Your task to perform on an android device: Open battery settings Image 0: 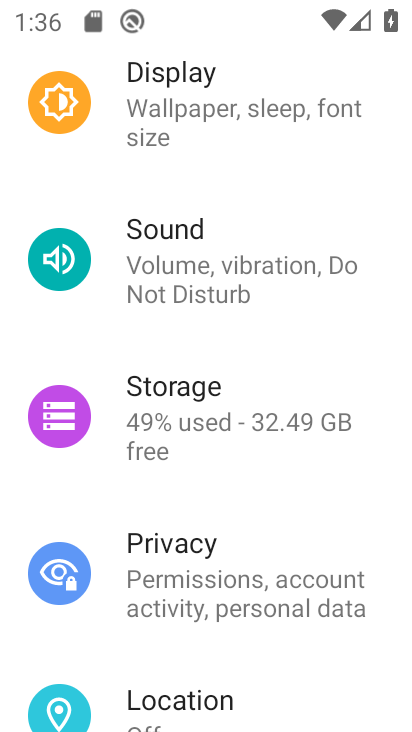
Step 0: press home button
Your task to perform on an android device: Open battery settings Image 1: 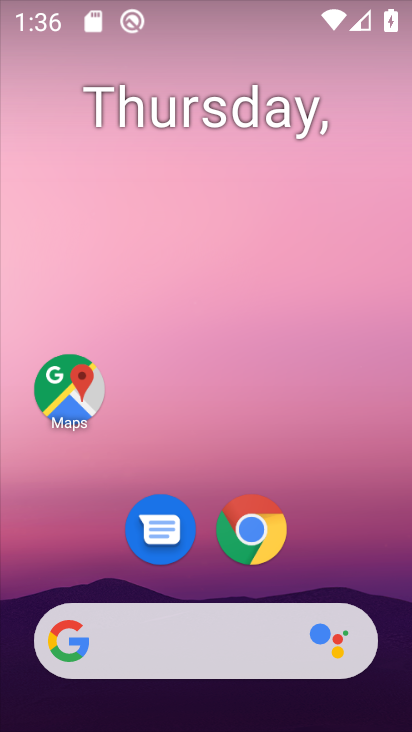
Step 1: drag from (293, 571) to (301, 13)
Your task to perform on an android device: Open battery settings Image 2: 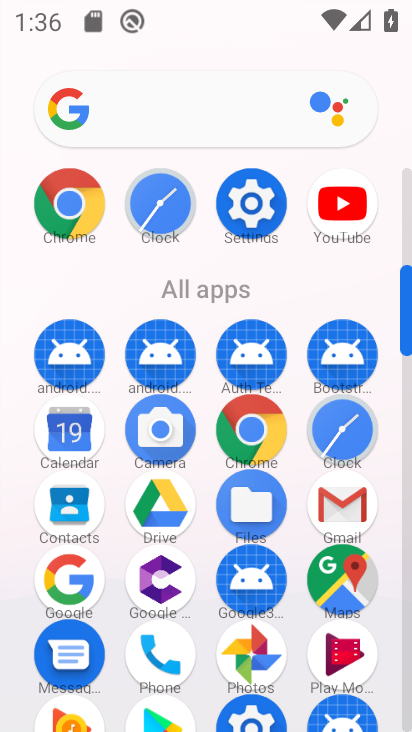
Step 2: click (250, 203)
Your task to perform on an android device: Open battery settings Image 3: 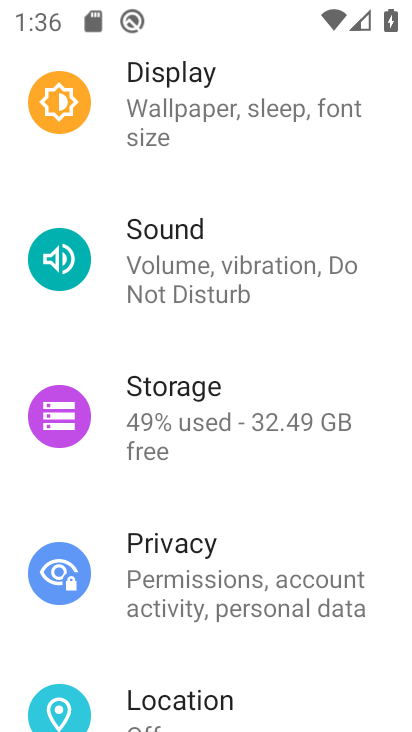
Step 3: click (237, 254)
Your task to perform on an android device: Open battery settings Image 4: 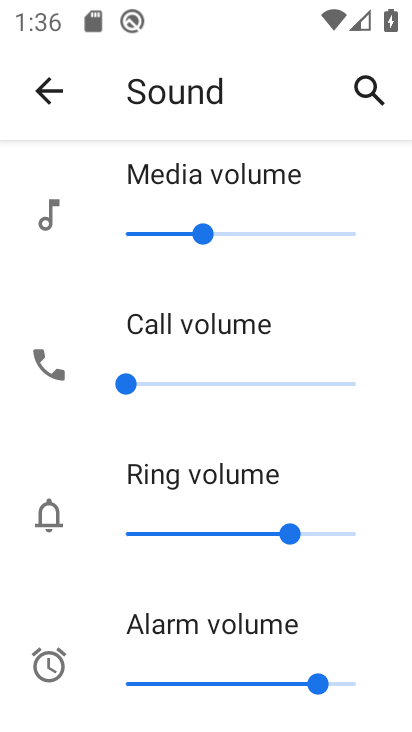
Step 4: click (50, 97)
Your task to perform on an android device: Open battery settings Image 5: 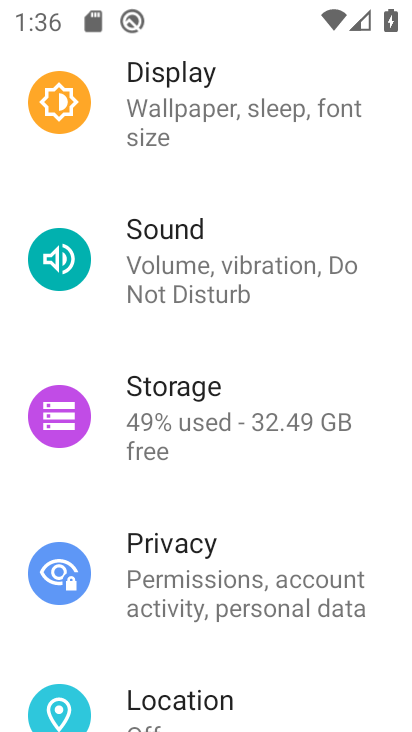
Step 5: drag from (263, 215) to (253, 593)
Your task to perform on an android device: Open battery settings Image 6: 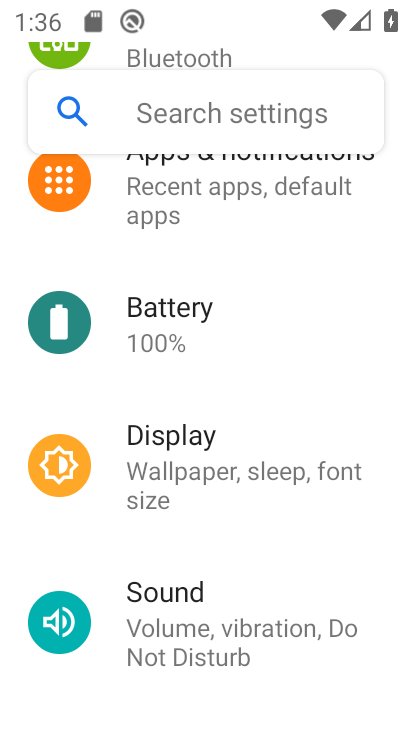
Step 6: drag from (252, 309) to (241, 674)
Your task to perform on an android device: Open battery settings Image 7: 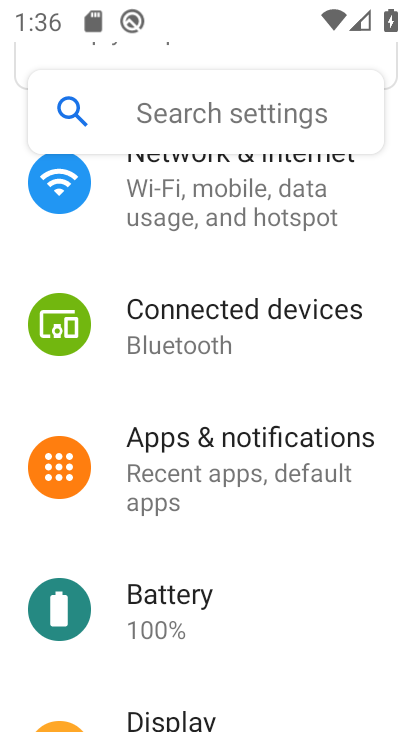
Step 7: click (160, 624)
Your task to perform on an android device: Open battery settings Image 8: 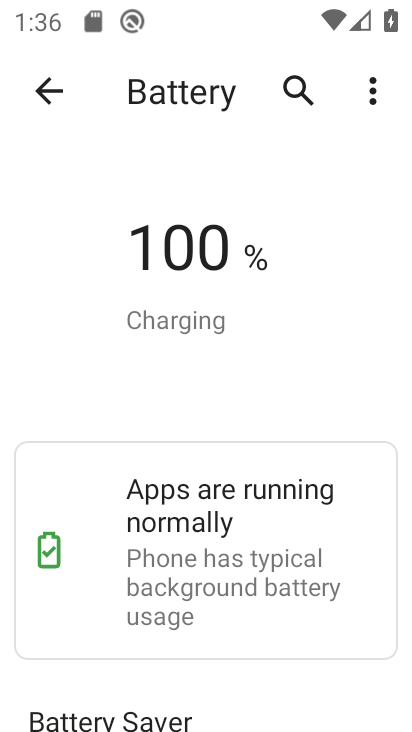
Step 8: task complete